Your task to perform on an android device: open device folders in google photos Image 0: 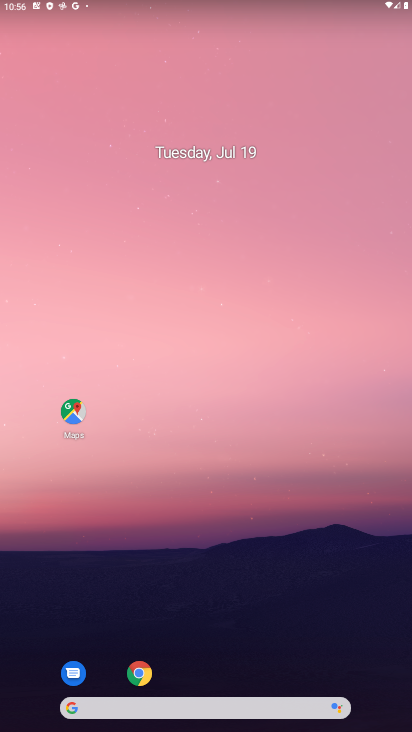
Step 0: drag from (274, 660) to (268, 342)
Your task to perform on an android device: open device folders in google photos Image 1: 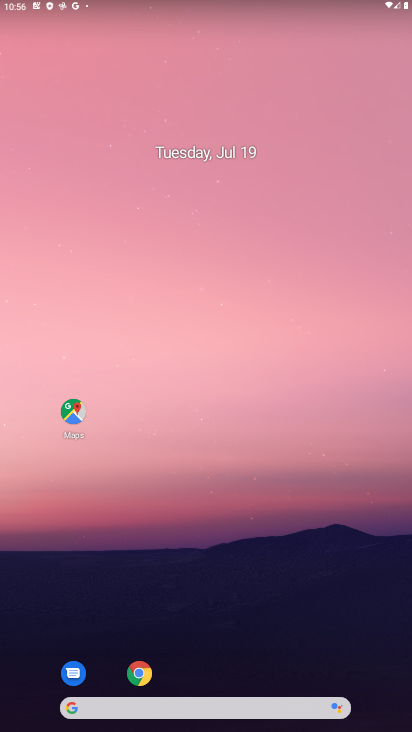
Step 1: drag from (261, 668) to (201, 119)
Your task to perform on an android device: open device folders in google photos Image 2: 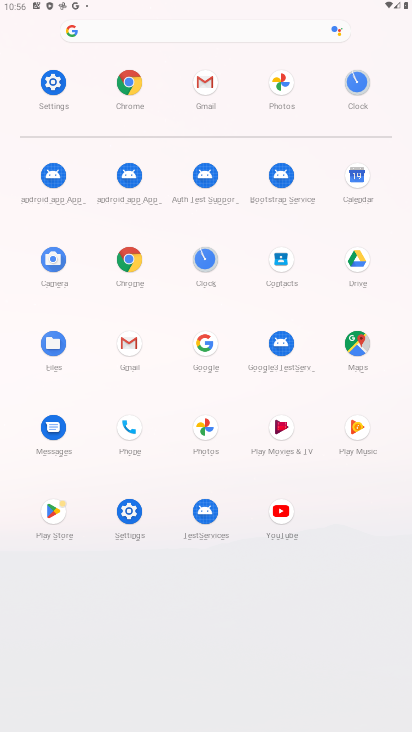
Step 2: click (274, 102)
Your task to perform on an android device: open device folders in google photos Image 3: 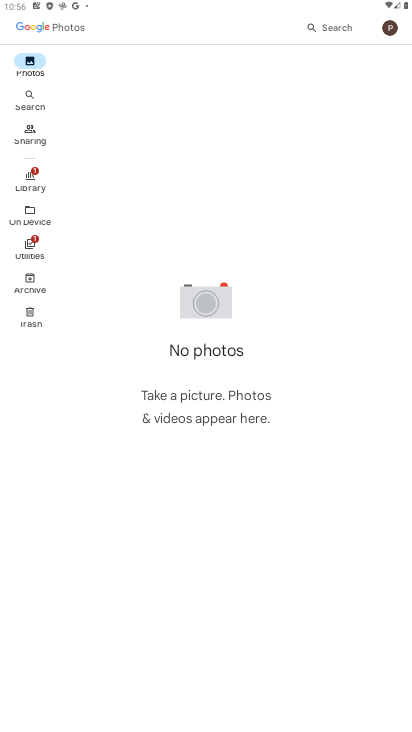
Step 3: task complete